Your task to perform on an android device: turn on priority inbox in the gmail app Image 0: 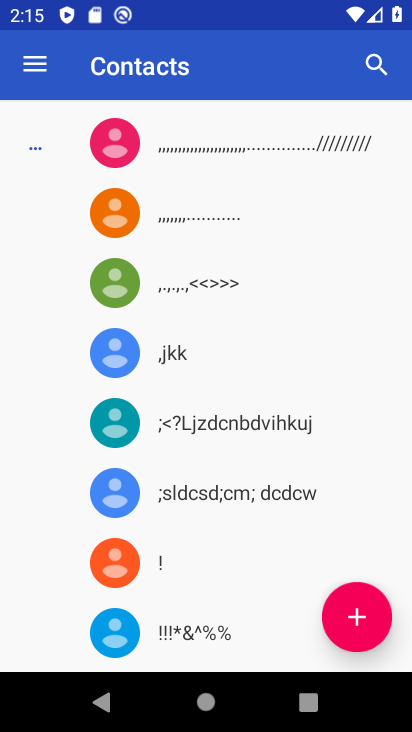
Step 0: press back button
Your task to perform on an android device: turn on priority inbox in the gmail app Image 1: 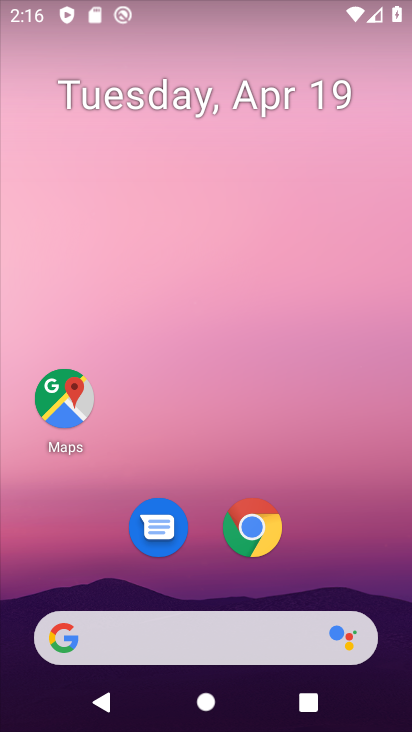
Step 1: drag from (207, 592) to (246, 242)
Your task to perform on an android device: turn on priority inbox in the gmail app Image 2: 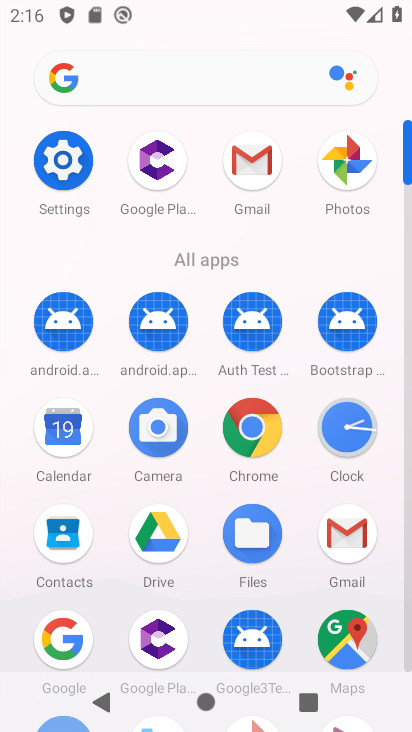
Step 2: click (338, 531)
Your task to perform on an android device: turn on priority inbox in the gmail app Image 3: 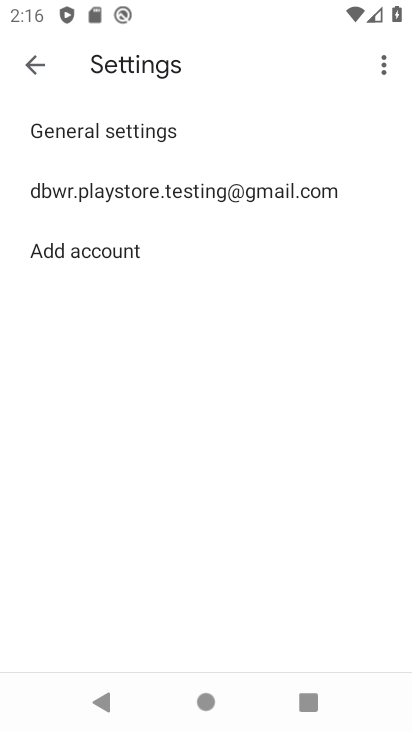
Step 3: click (160, 185)
Your task to perform on an android device: turn on priority inbox in the gmail app Image 4: 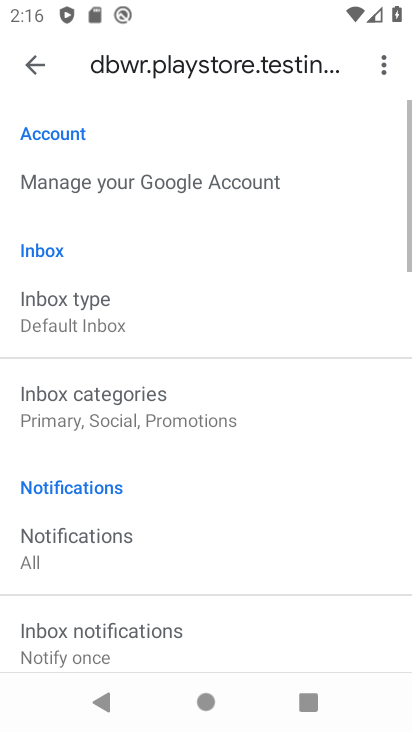
Step 4: click (108, 307)
Your task to perform on an android device: turn on priority inbox in the gmail app Image 5: 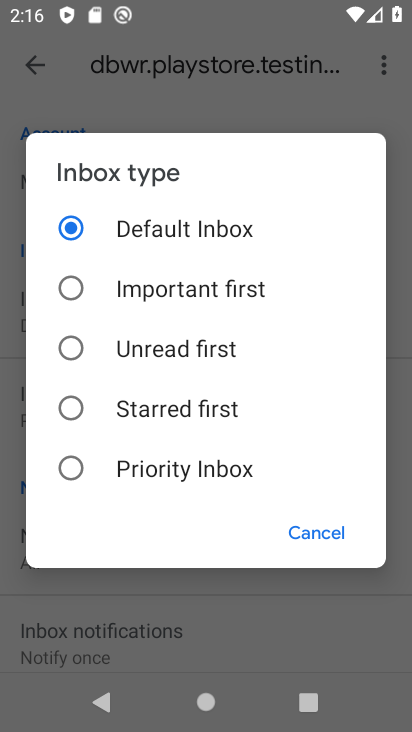
Step 5: click (75, 461)
Your task to perform on an android device: turn on priority inbox in the gmail app Image 6: 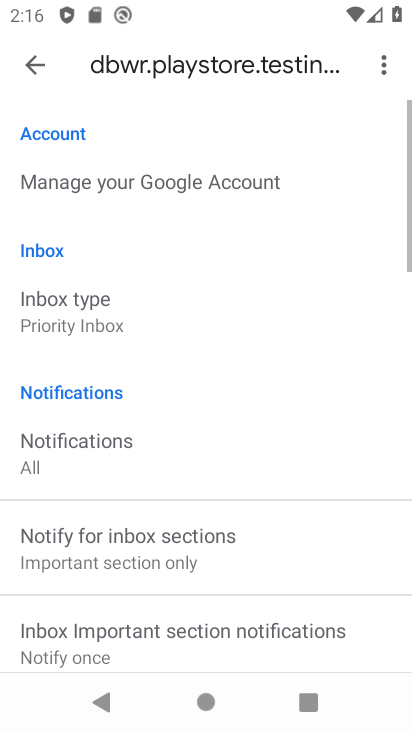
Step 6: click (40, 71)
Your task to perform on an android device: turn on priority inbox in the gmail app Image 7: 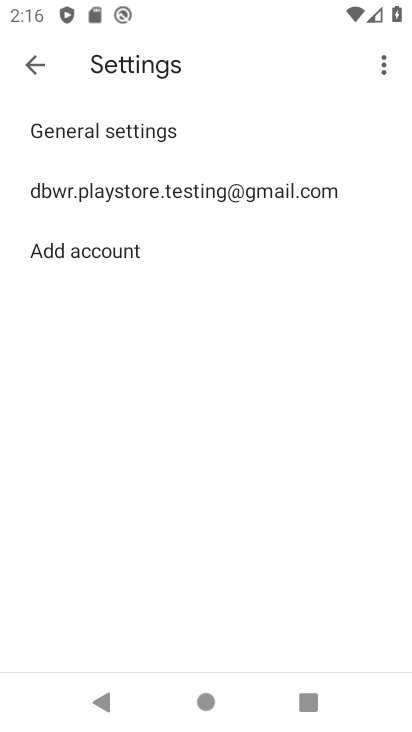
Step 7: task complete